Your task to perform on an android device: Open the calendar and show me this week's events? Image 0: 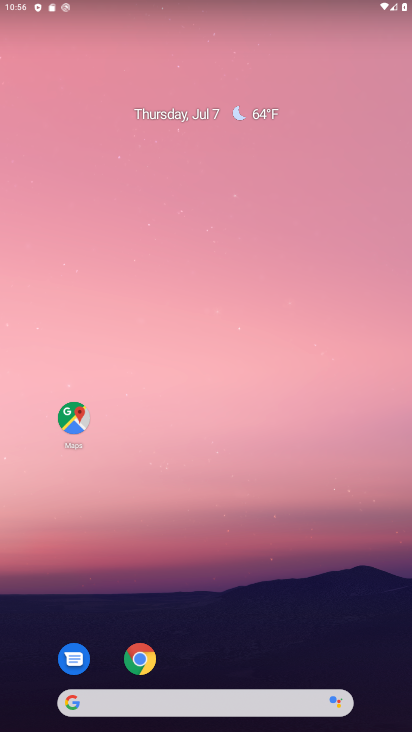
Step 0: drag from (131, 684) to (188, 434)
Your task to perform on an android device: Open the calendar and show me this week's events? Image 1: 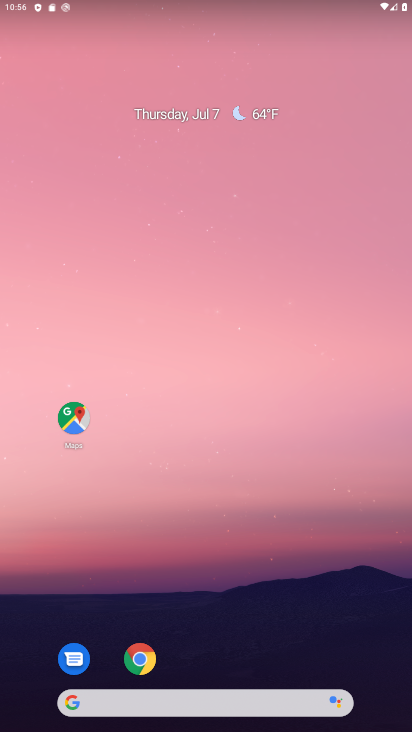
Step 1: drag from (190, 687) to (188, 278)
Your task to perform on an android device: Open the calendar and show me this week's events? Image 2: 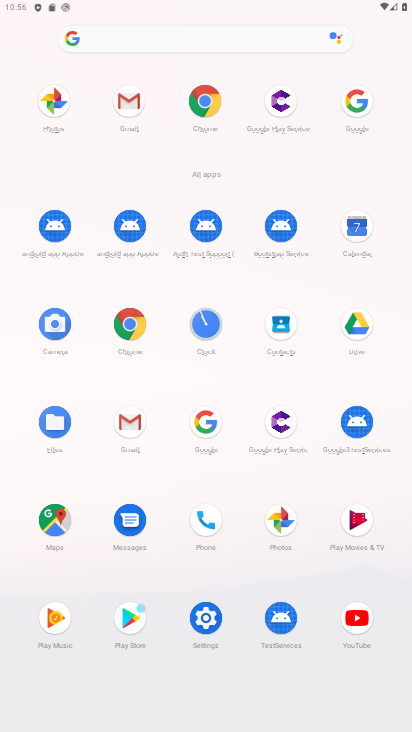
Step 2: click (365, 227)
Your task to perform on an android device: Open the calendar and show me this week's events? Image 3: 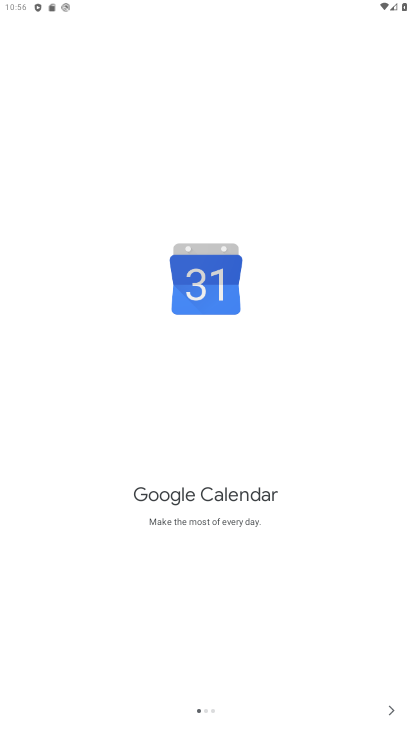
Step 3: click (395, 707)
Your task to perform on an android device: Open the calendar and show me this week's events? Image 4: 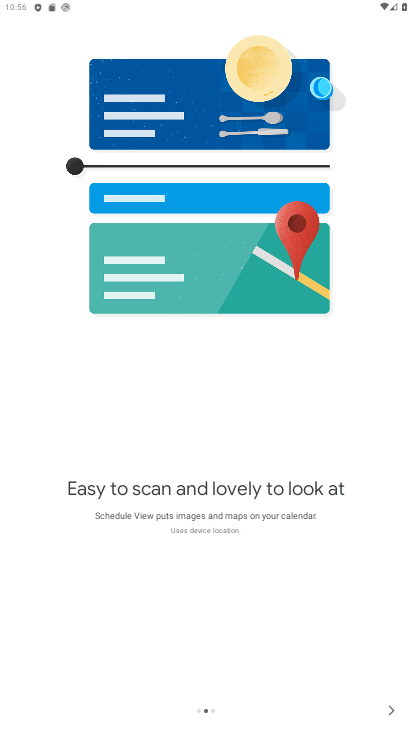
Step 4: click (393, 709)
Your task to perform on an android device: Open the calendar and show me this week's events? Image 5: 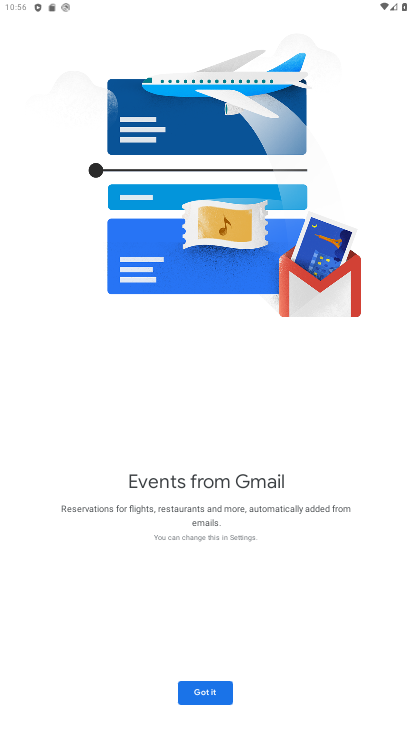
Step 5: click (205, 688)
Your task to perform on an android device: Open the calendar and show me this week's events? Image 6: 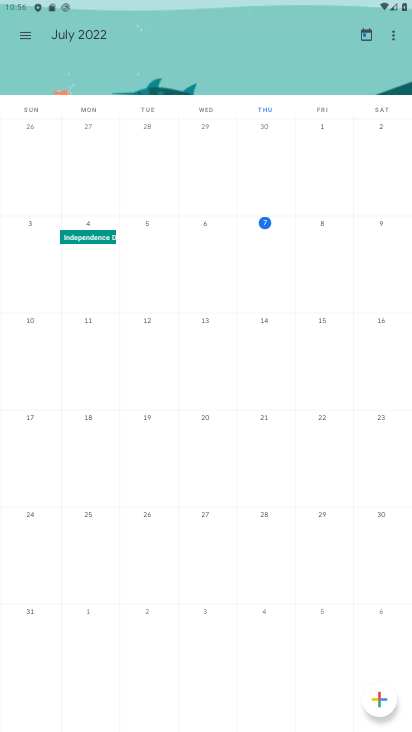
Step 6: click (379, 228)
Your task to perform on an android device: Open the calendar and show me this week's events? Image 7: 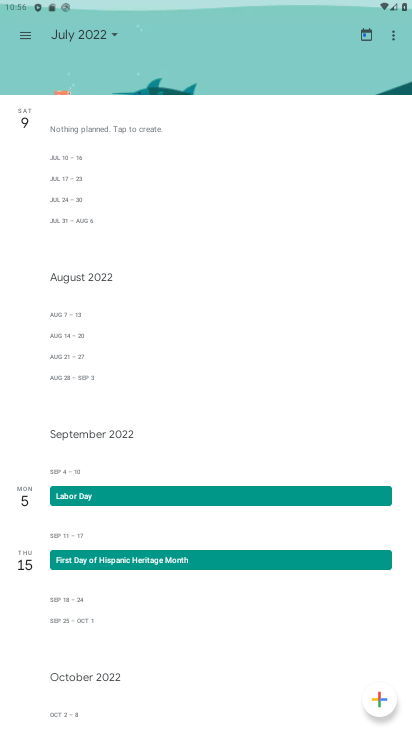
Step 7: task complete